Your task to perform on an android device: delete browsing data in the chrome app Image 0: 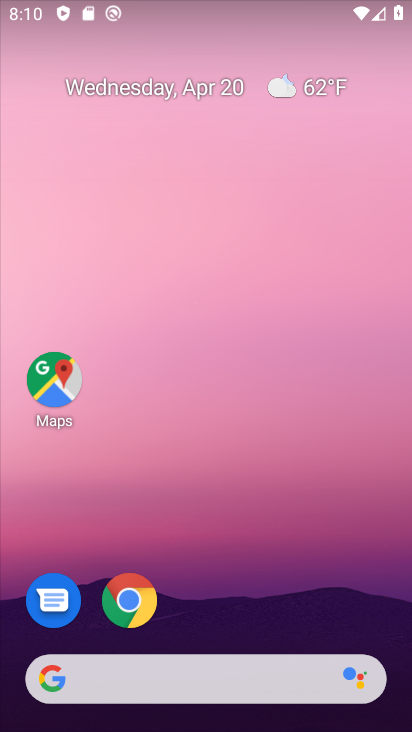
Step 0: click (125, 599)
Your task to perform on an android device: delete browsing data in the chrome app Image 1: 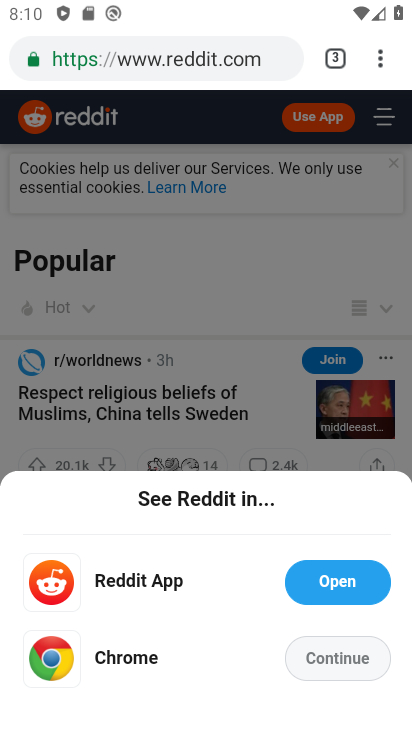
Step 1: click (381, 61)
Your task to perform on an android device: delete browsing data in the chrome app Image 2: 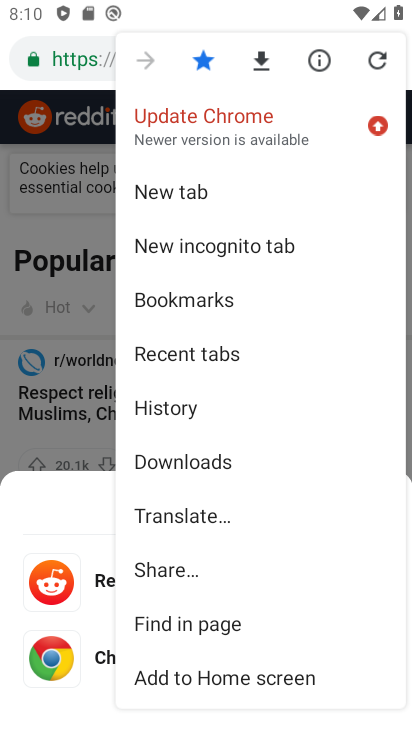
Step 2: click (167, 411)
Your task to perform on an android device: delete browsing data in the chrome app Image 3: 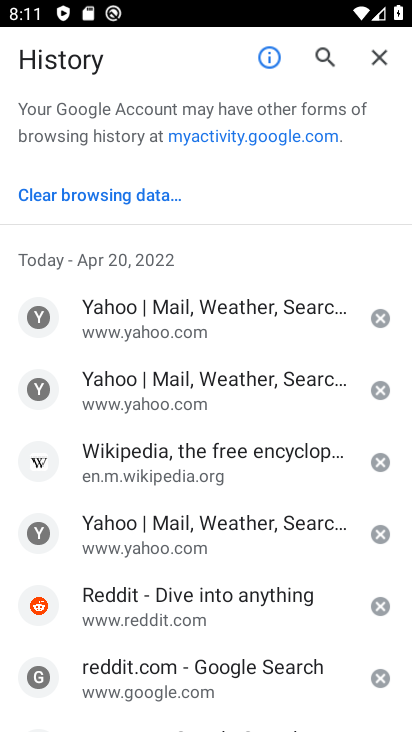
Step 3: click (142, 189)
Your task to perform on an android device: delete browsing data in the chrome app Image 4: 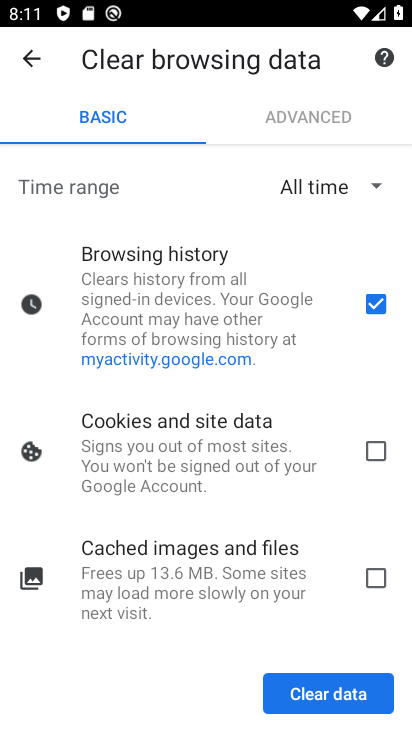
Step 4: click (330, 692)
Your task to perform on an android device: delete browsing data in the chrome app Image 5: 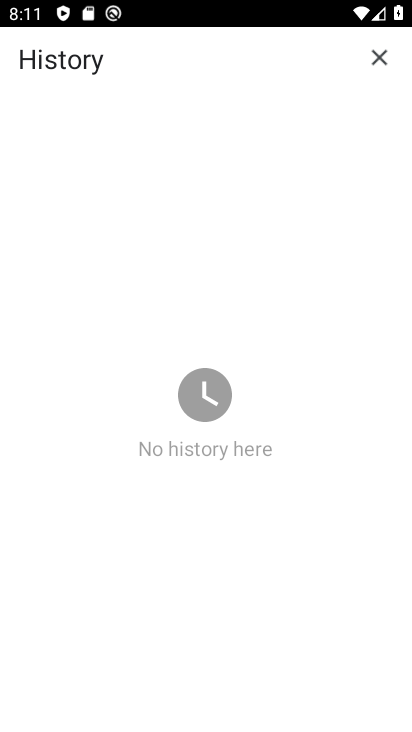
Step 5: task complete